Your task to perform on an android device: add a contact in the contacts app Image 0: 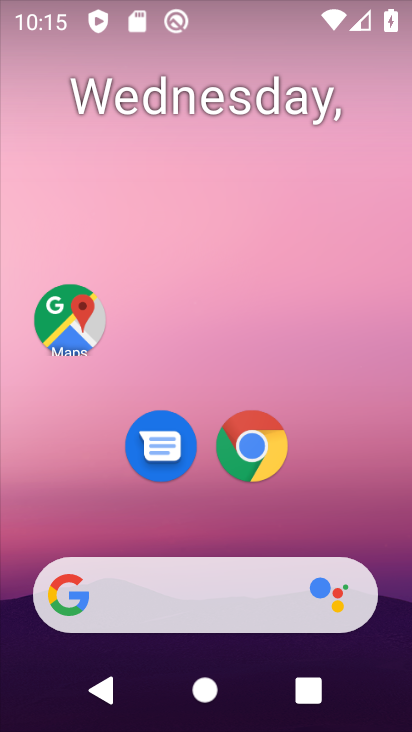
Step 0: drag from (327, 467) to (328, 253)
Your task to perform on an android device: add a contact in the contacts app Image 1: 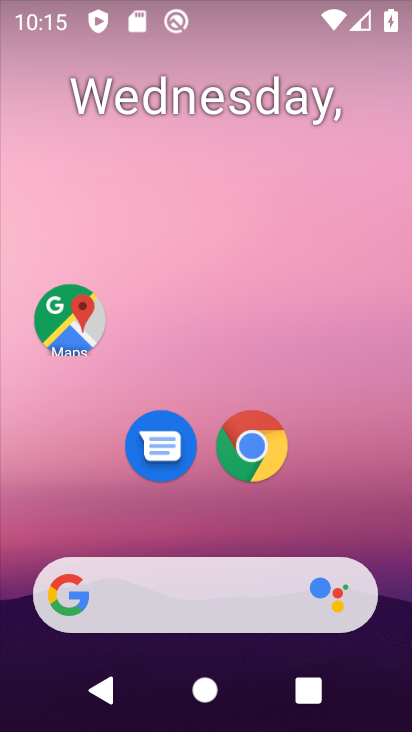
Step 1: drag from (309, 513) to (294, 211)
Your task to perform on an android device: add a contact in the contacts app Image 2: 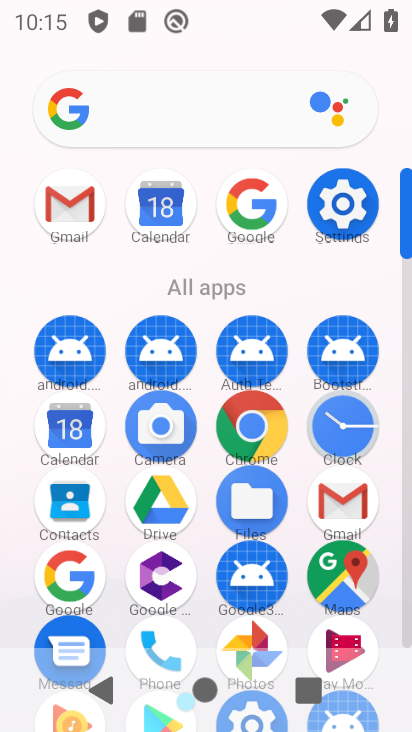
Step 2: click (67, 509)
Your task to perform on an android device: add a contact in the contacts app Image 3: 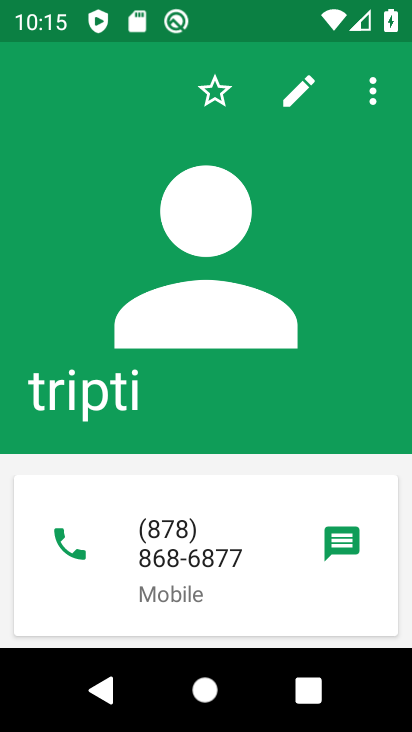
Step 3: press back button
Your task to perform on an android device: add a contact in the contacts app Image 4: 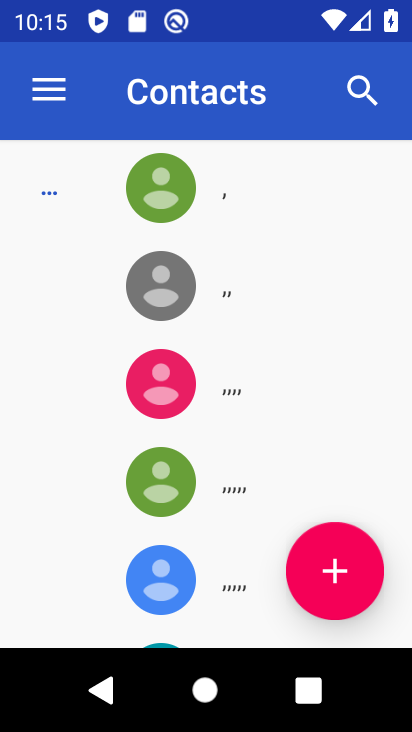
Step 4: click (347, 565)
Your task to perform on an android device: add a contact in the contacts app Image 5: 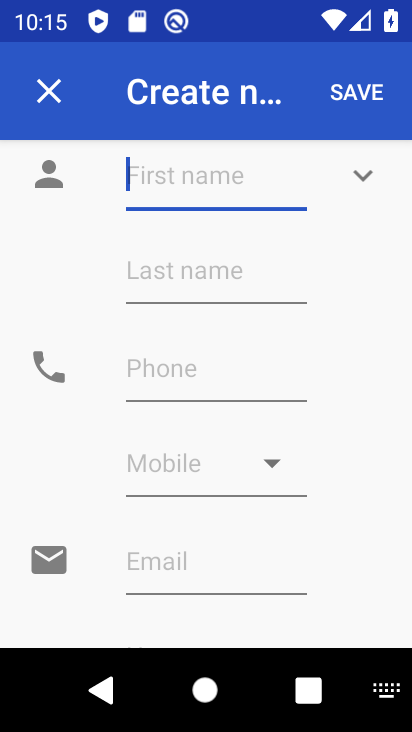
Step 5: type "tripathi ji"
Your task to perform on an android device: add a contact in the contacts app Image 6: 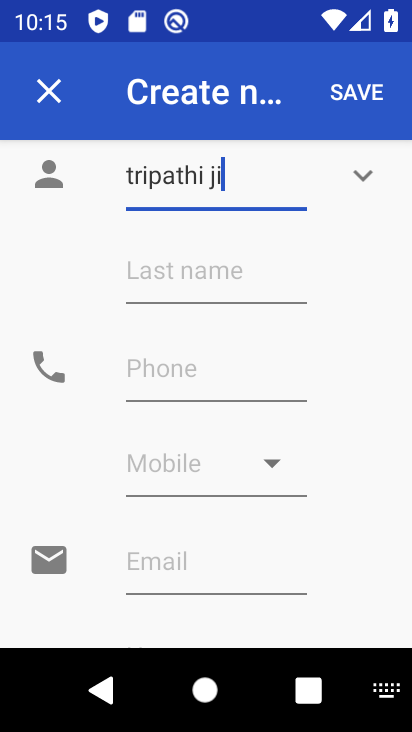
Step 6: click (187, 376)
Your task to perform on an android device: add a contact in the contacts app Image 7: 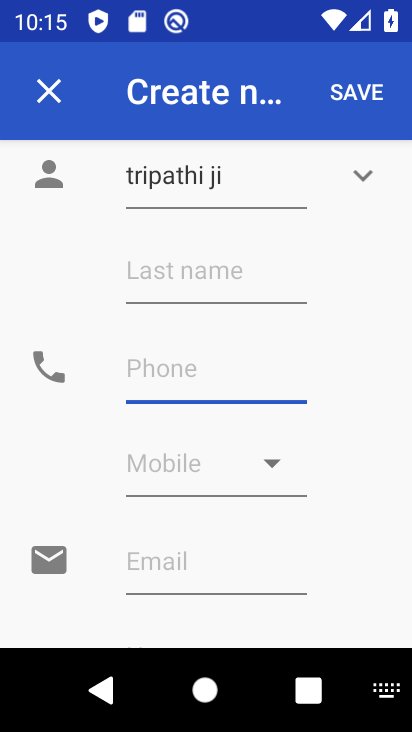
Step 7: type "9896547555"
Your task to perform on an android device: add a contact in the contacts app Image 8: 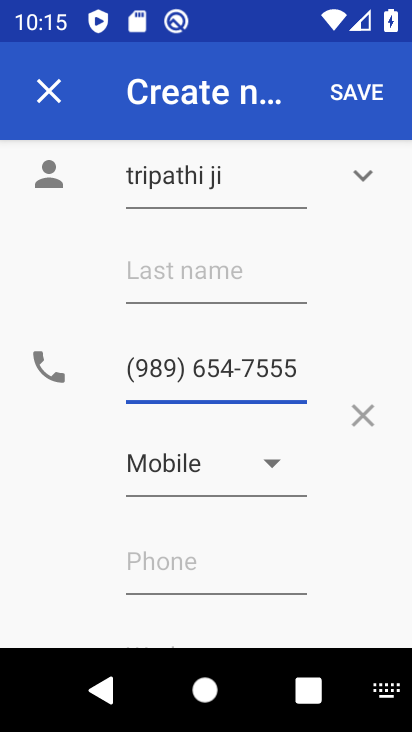
Step 8: click (365, 100)
Your task to perform on an android device: add a contact in the contacts app Image 9: 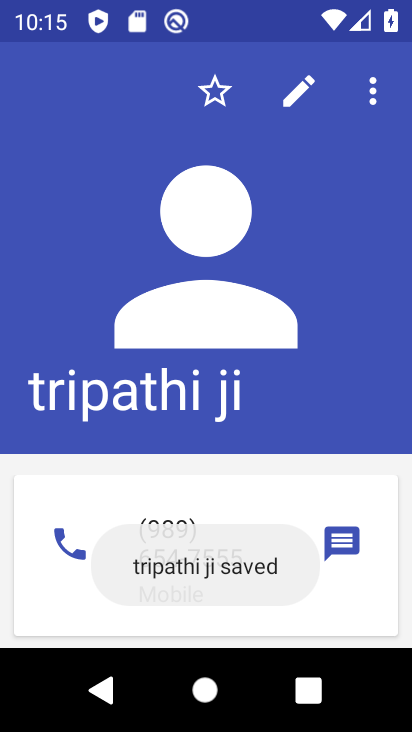
Step 9: task complete